Your task to perform on an android device: Open Google Chrome Image 0: 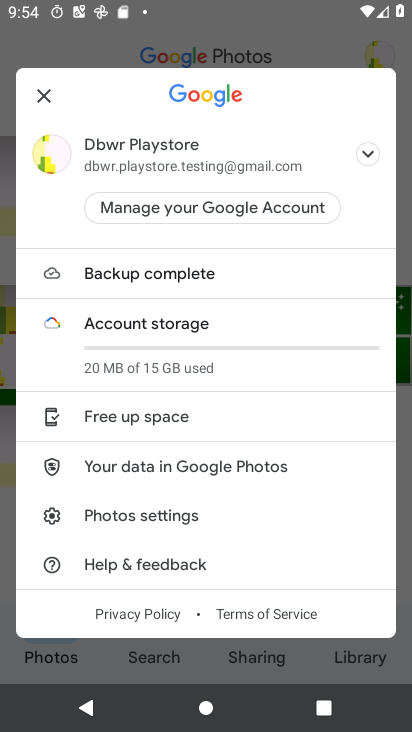
Step 0: press home button
Your task to perform on an android device: Open Google Chrome Image 1: 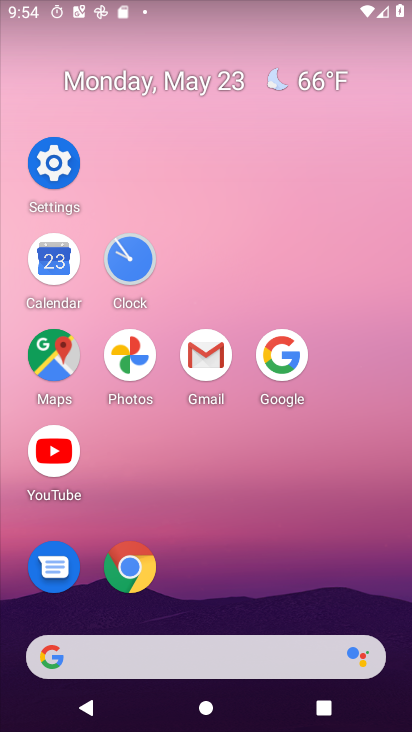
Step 1: click (140, 564)
Your task to perform on an android device: Open Google Chrome Image 2: 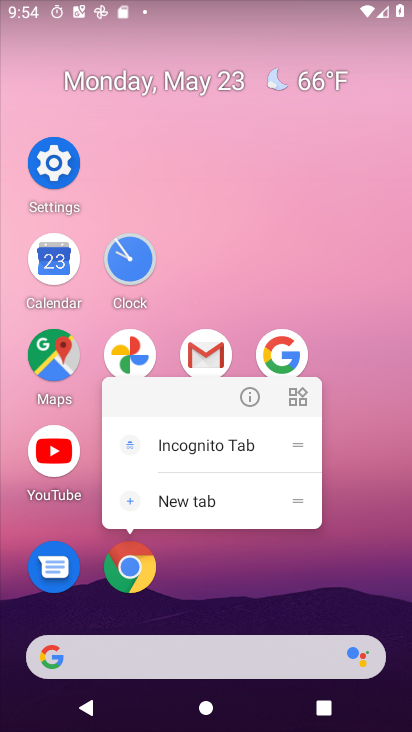
Step 2: click (141, 572)
Your task to perform on an android device: Open Google Chrome Image 3: 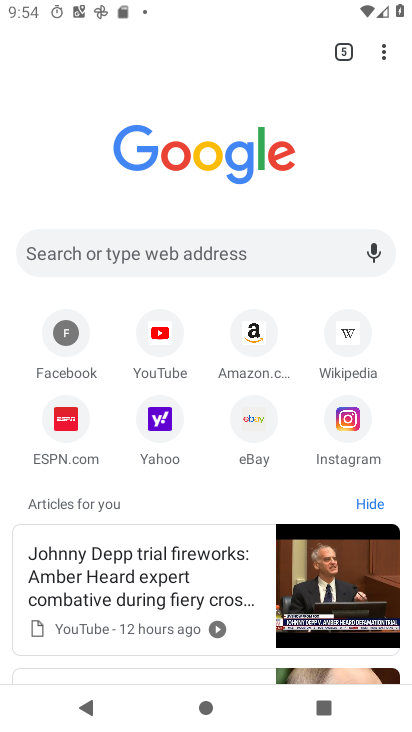
Step 3: task complete